Your task to perform on an android device: Open Chrome and go to the settings page Image 0: 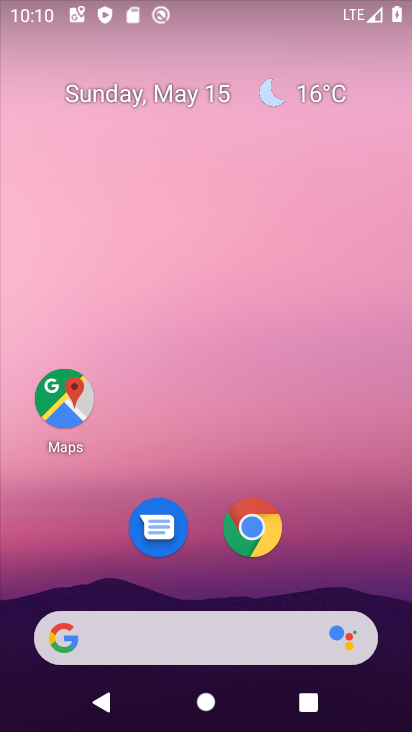
Step 0: click (259, 531)
Your task to perform on an android device: Open Chrome and go to the settings page Image 1: 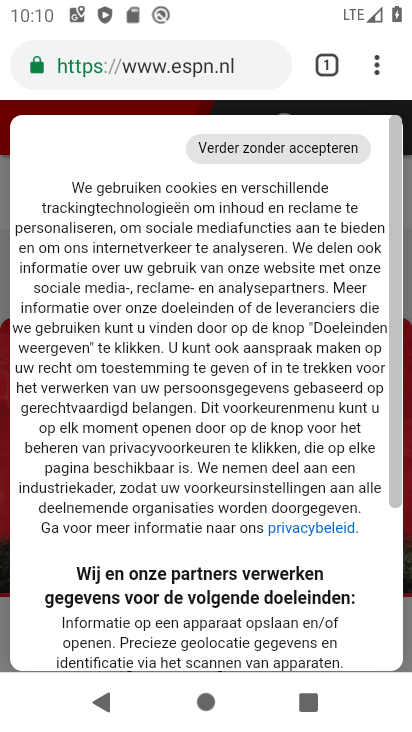
Step 1: click (381, 61)
Your task to perform on an android device: Open Chrome and go to the settings page Image 2: 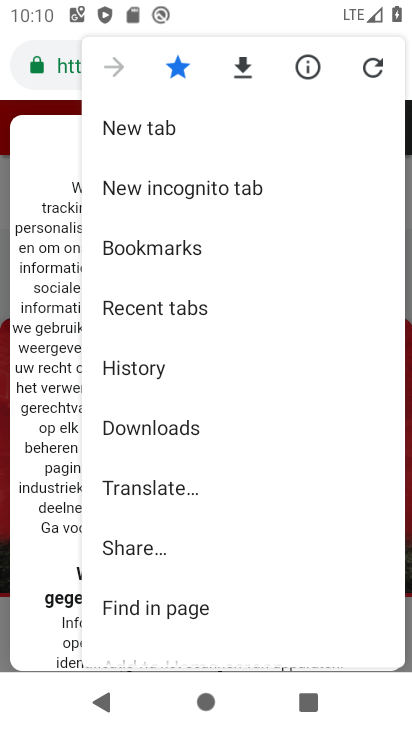
Step 2: drag from (217, 496) to (225, 169)
Your task to perform on an android device: Open Chrome and go to the settings page Image 3: 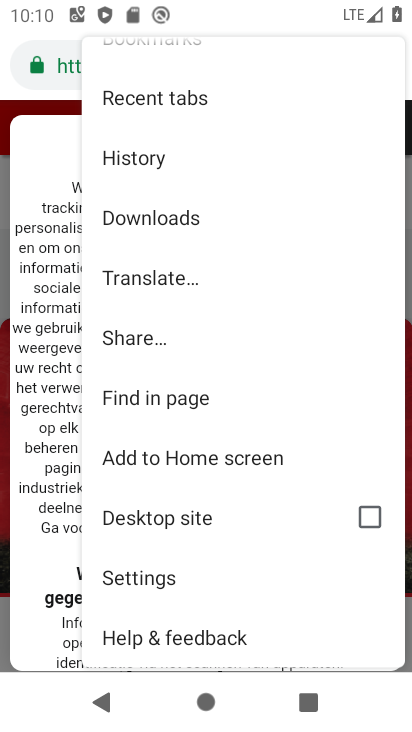
Step 3: click (145, 579)
Your task to perform on an android device: Open Chrome and go to the settings page Image 4: 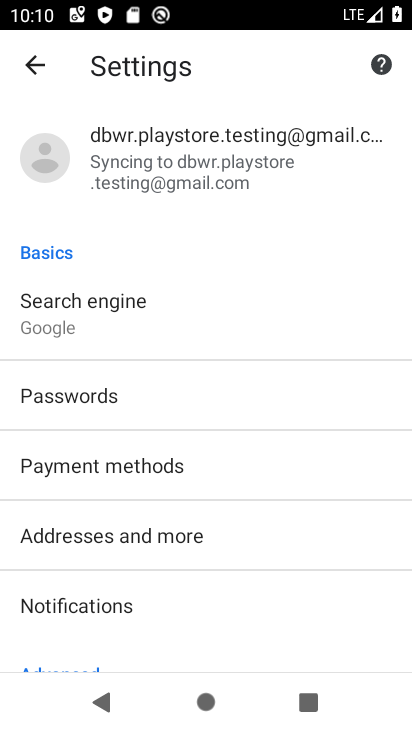
Step 4: task complete